Your task to perform on an android device: What's on my calendar tomorrow? Image 0: 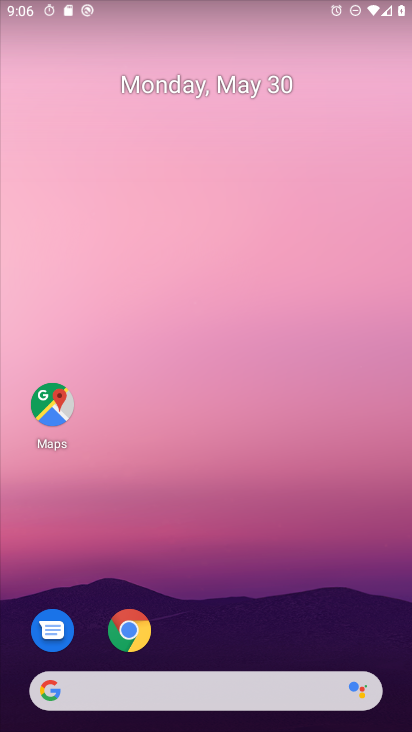
Step 0: drag from (323, 614) to (163, 0)
Your task to perform on an android device: What's on my calendar tomorrow? Image 1: 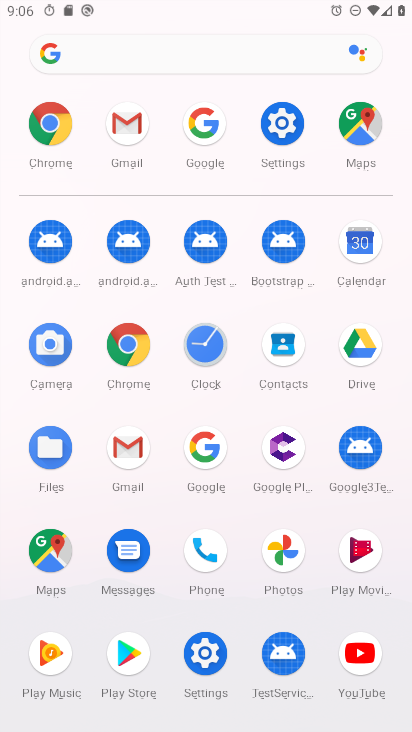
Step 1: click (346, 267)
Your task to perform on an android device: What's on my calendar tomorrow? Image 2: 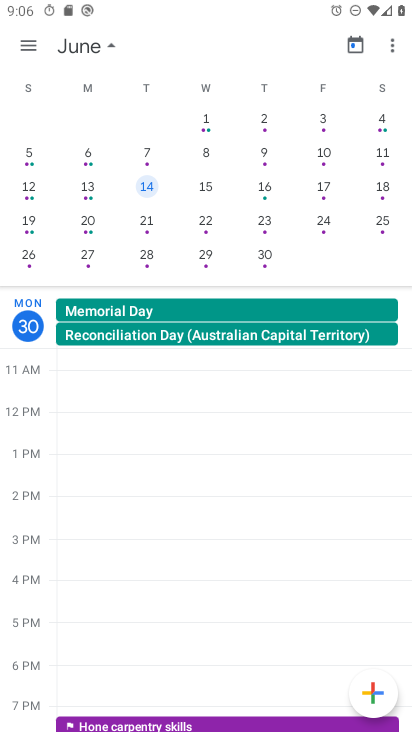
Step 2: drag from (90, 216) to (385, 197)
Your task to perform on an android device: What's on my calendar tomorrow? Image 3: 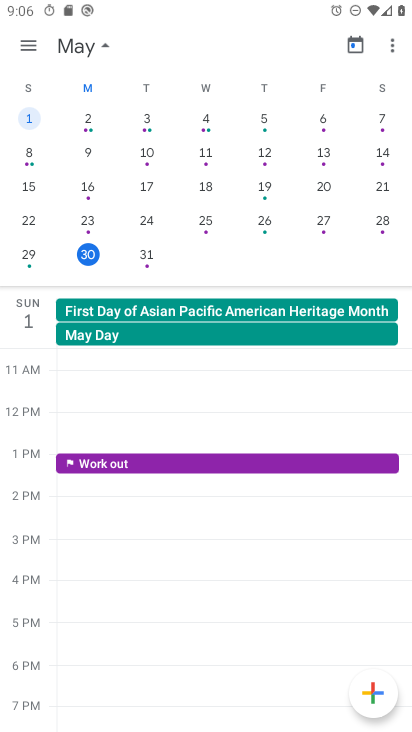
Step 3: click (140, 259)
Your task to perform on an android device: What's on my calendar tomorrow? Image 4: 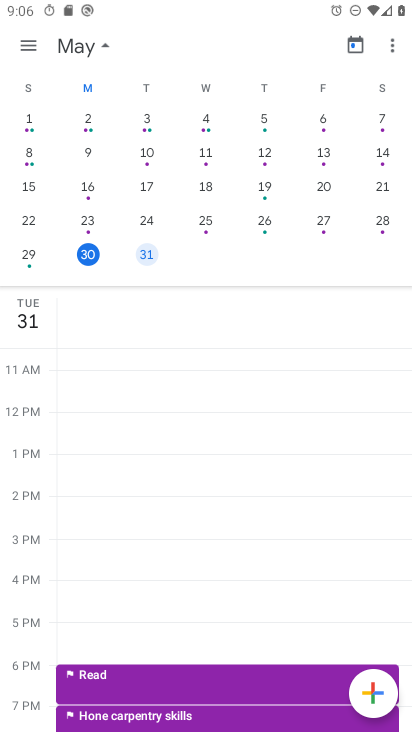
Step 4: click (208, 719)
Your task to perform on an android device: What's on my calendar tomorrow? Image 5: 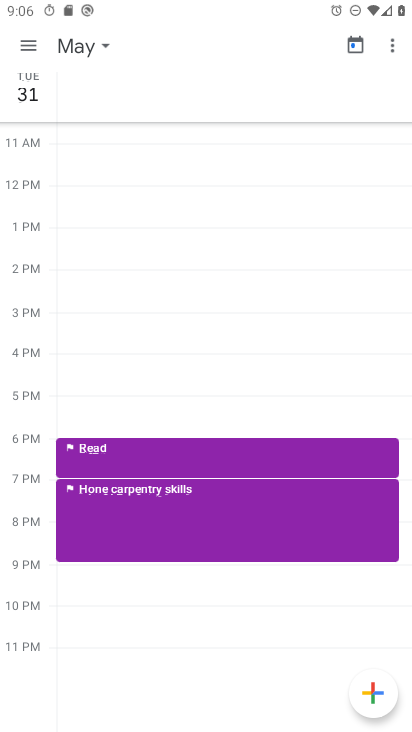
Step 5: click (202, 514)
Your task to perform on an android device: What's on my calendar tomorrow? Image 6: 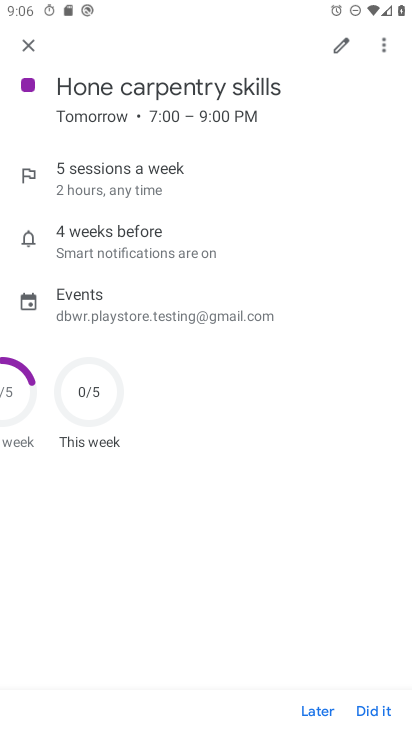
Step 6: task complete